Your task to perform on an android device: Open Android settings Image 0: 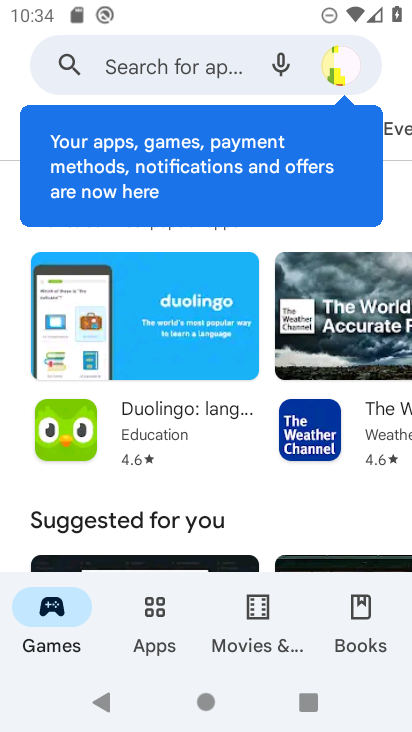
Step 0: press home button
Your task to perform on an android device: Open Android settings Image 1: 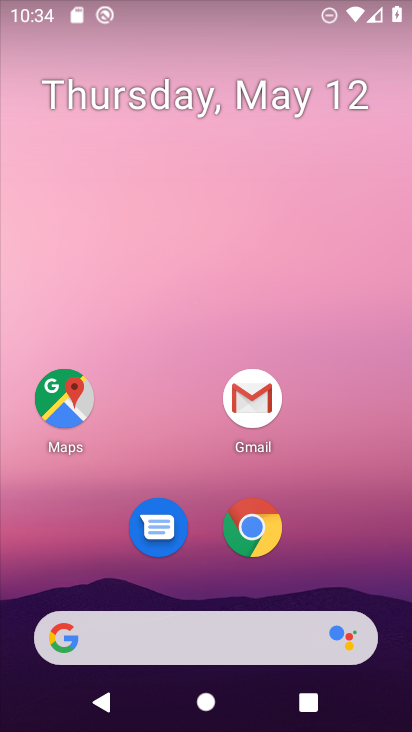
Step 1: drag from (317, 575) to (321, 432)
Your task to perform on an android device: Open Android settings Image 2: 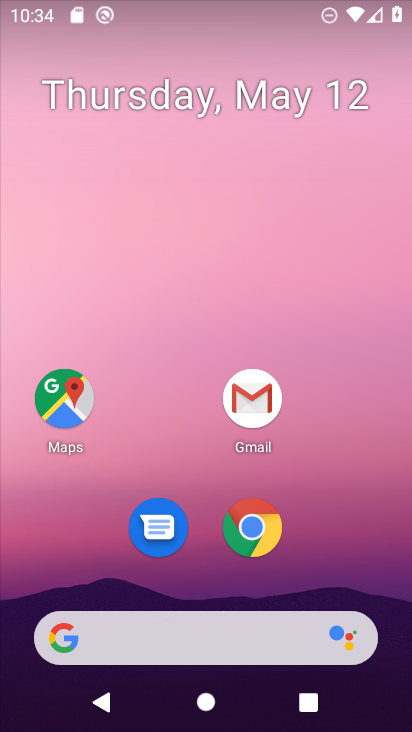
Step 2: drag from (318, 548) to (334, 240)
Your task to perform on an android device: Open Android settings Image 3: 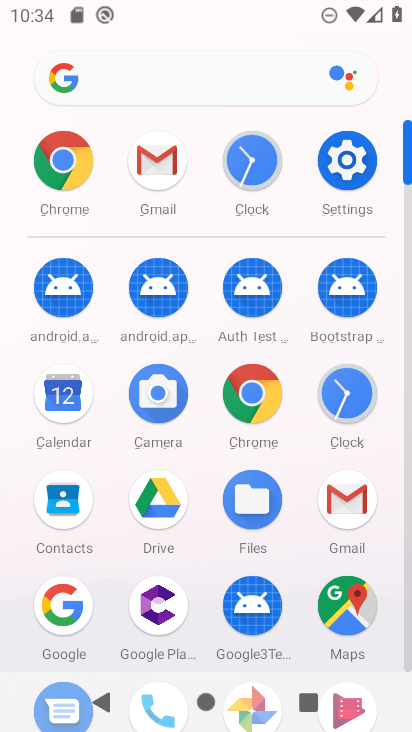
Step 3: click (345, 202)
Your task to perform on an android device: Open Android settings Image 4: 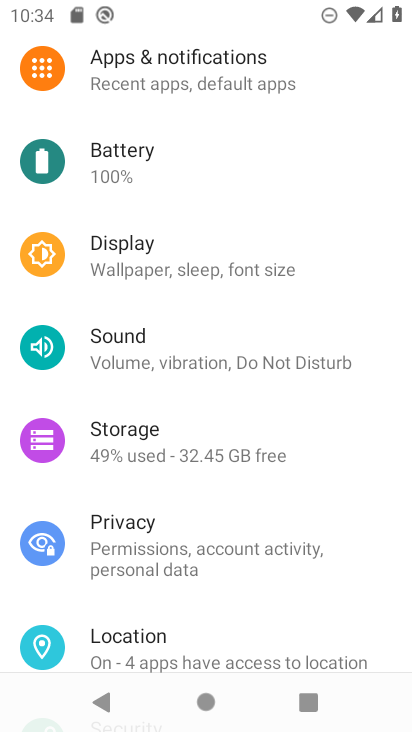
Step 4: task complete